Your task to perform on an android device: Search for Mexican restaurants on Maps Image 0: 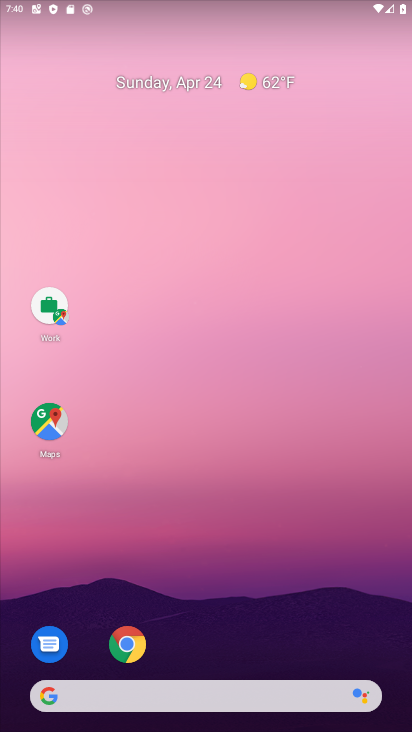
Step 0: drag from (204, 699) to (163, 36)
Your task to perform on an android device: Search for Mexican restaurants on Maps Image 1: 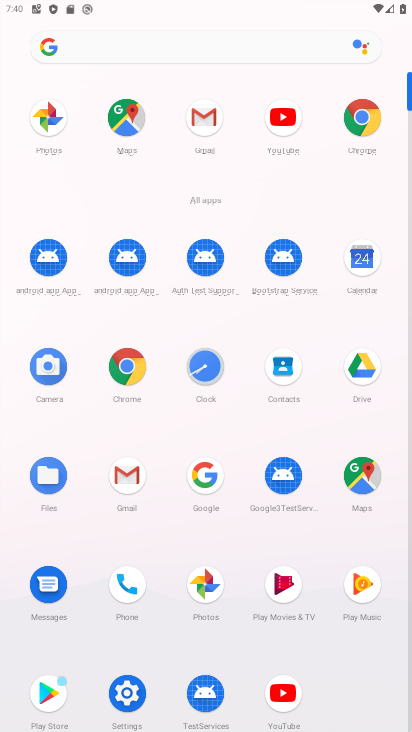
Step 1: click (350, 470)
Your task to perform on an android device: Search for Mexican restaurants on Maps Image 2: 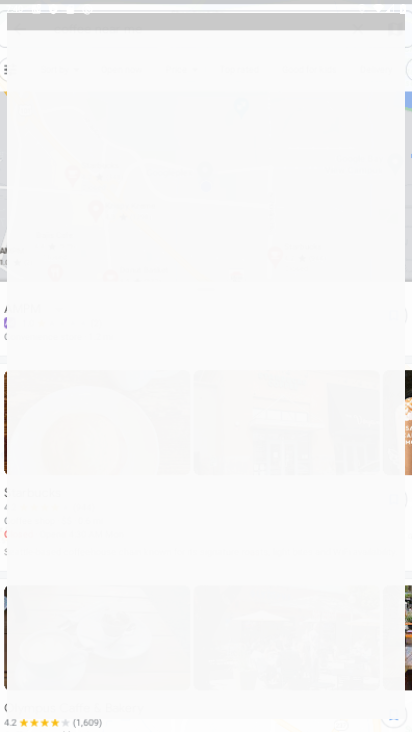
Step 2: click (68, 36)
Your task to perform on an android device: Search for Mexican restaurants on Maps Image 3: 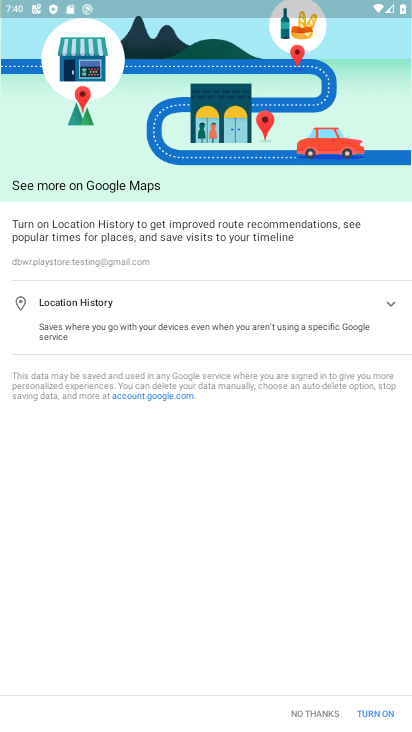
Step 3: press back button
Your task to perform on an android device: Search for Mexican restaurants on Maps Image 4: 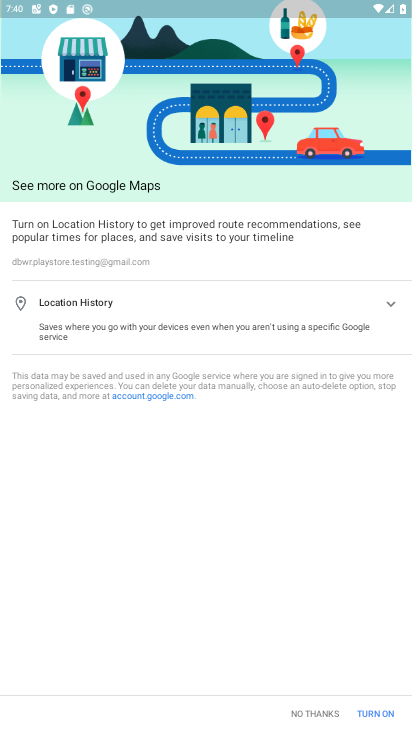
Step 4: press back button
Your task to perform on an android device: Search for Mexican restaurants on Maps Image 5: 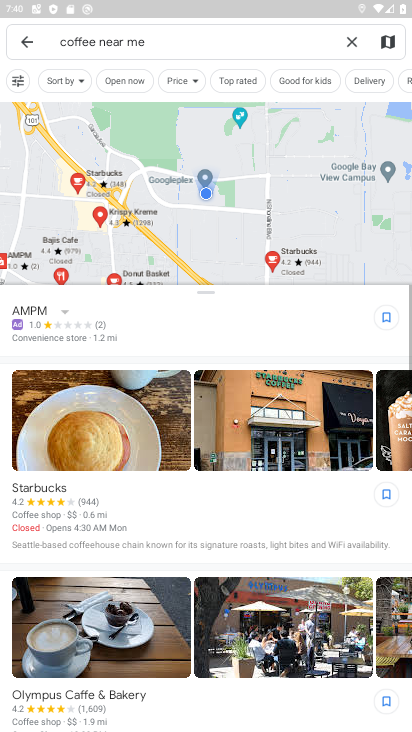
Step 5: press back button
Your task to perform on an android device: Search for Mexican restaurants on Maps Image 6: 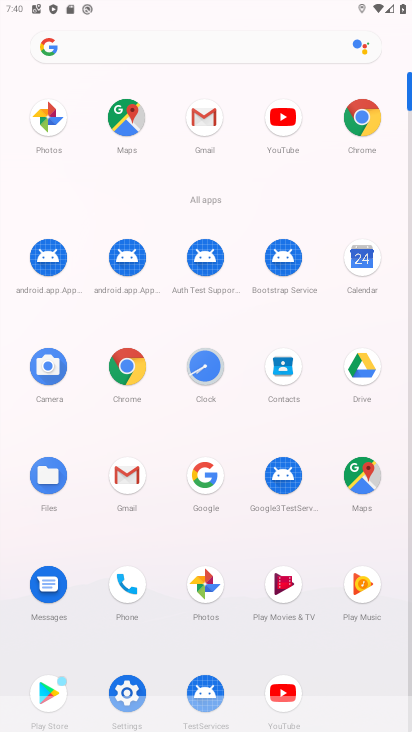
Step 6: click (54, 68)
Your task to perform on an android device: Search for Mexican restaurants on Maps Image 7: 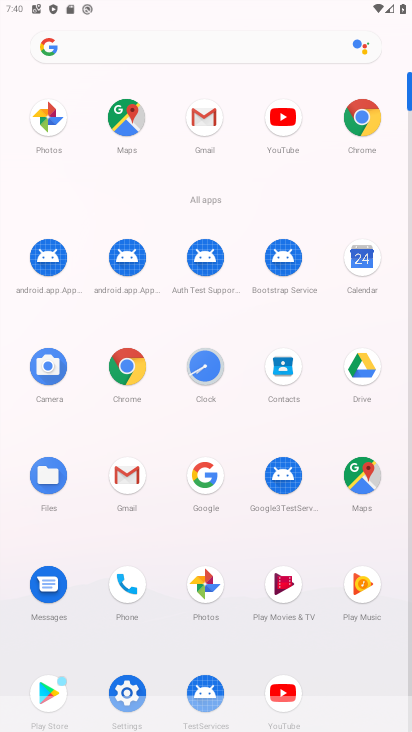
Step 7: click (365, 478)
Your task to perform on an android device: Search for Mexican restaurants on Maps Image 8: 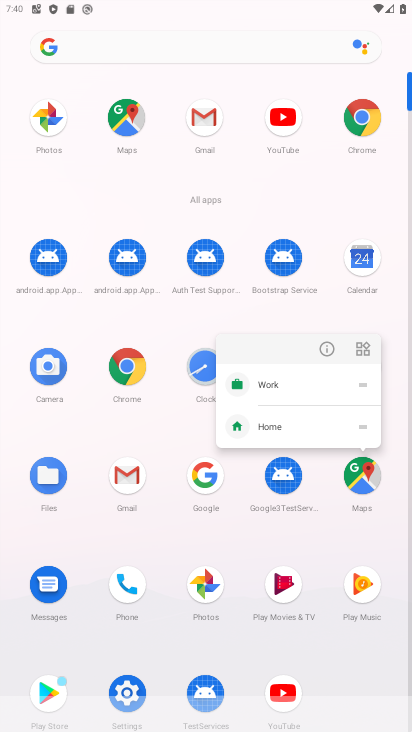
Step 8: click (368, 450)
Your task to perform on an android device: Search for Mexican restaurants on Maps Image 9: 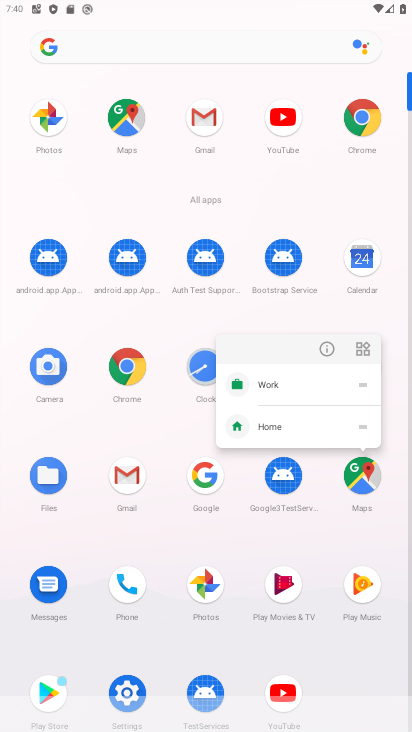
Step 9: click (351, 475)
Your task to perform on an android device: Search for Mexican restaurants on Maps Image 10: 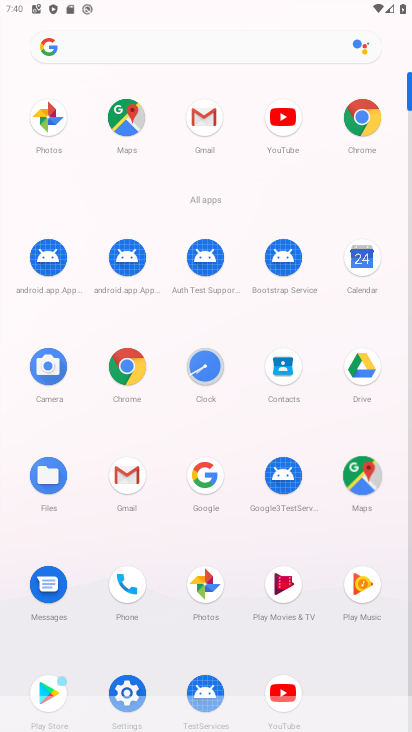
Step 10: click (350, 478)
Your task to perform on an android device: Search for Mexican restaurants on Maps Image 11: 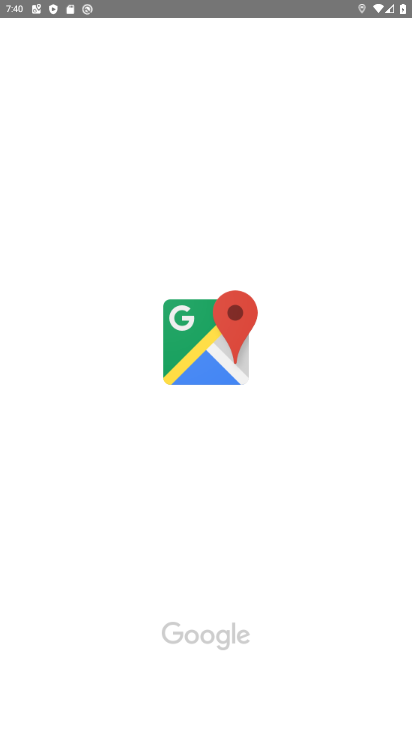
Step 11: click (362, 468)
Your task to perform on an android device: Search for Mexican restaurants on Maps Image 12: 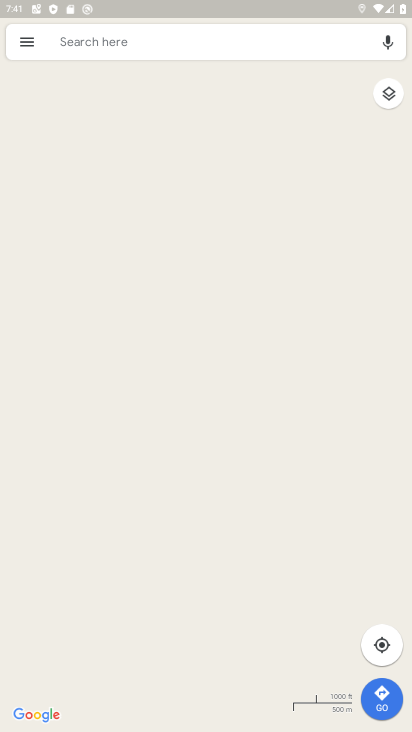
Step 12: click (99, 32)
Your task to perform on an android device: Search for Mexican restaurants on Maps Image 13: 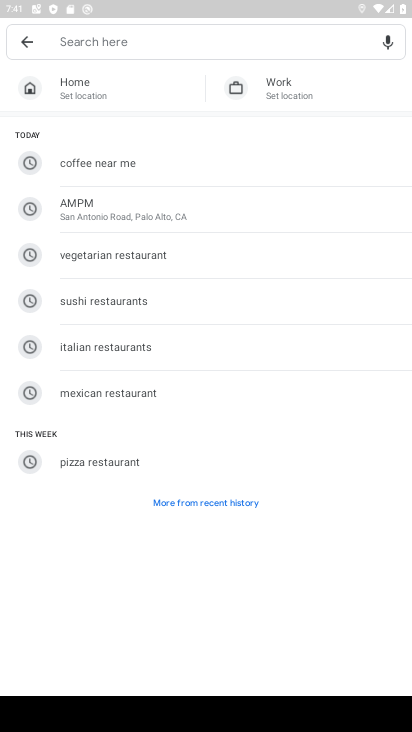
Step 13: click (112, 390)
Your task to perform on an android device: Search for Mexican restaurants on Maps Image 14: 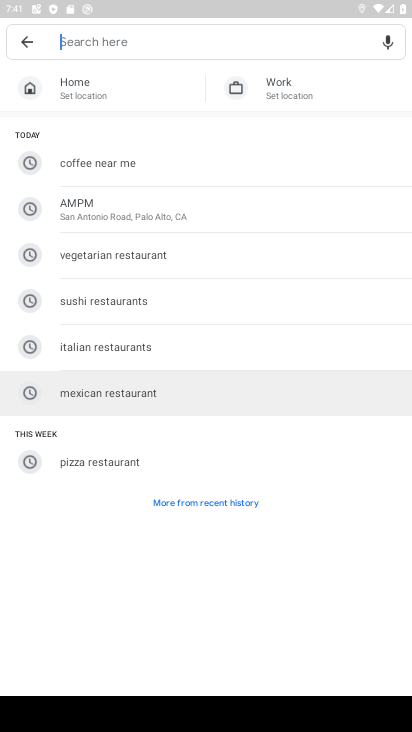
Step 14: click (113, 392)
Your task to perform on an android device: Search for Mexican restaurants on Maps Image 15: 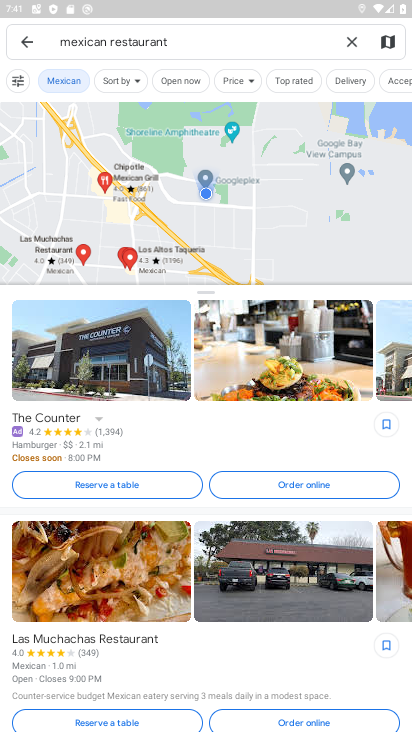
Step 15: task complete